Your task to perform on an android device: Open the stopwatch Image 0: 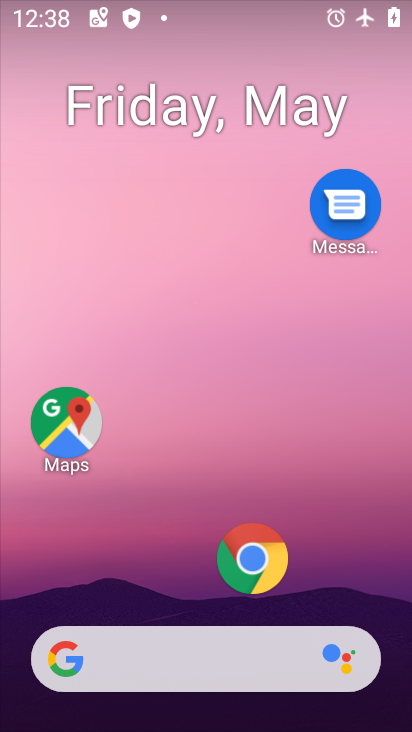
Step 0: drag from (257, 614) to (247, 134)
Your task to perform on an android device: Open the stopwatch Image 1: 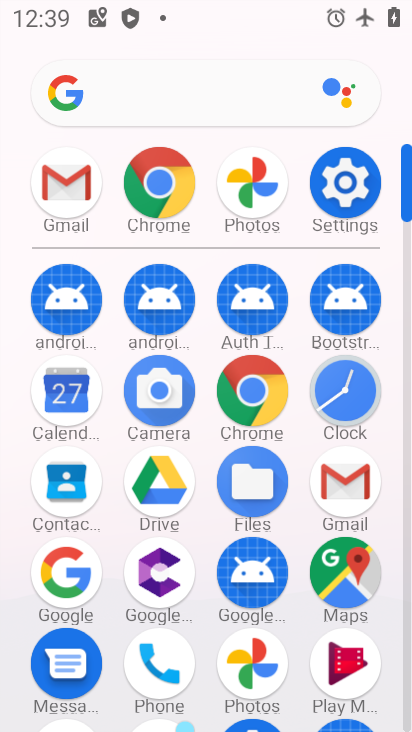
Step 1: click (364, 407)
Your task to perform on an android device: Open the stopwatch Image 2: 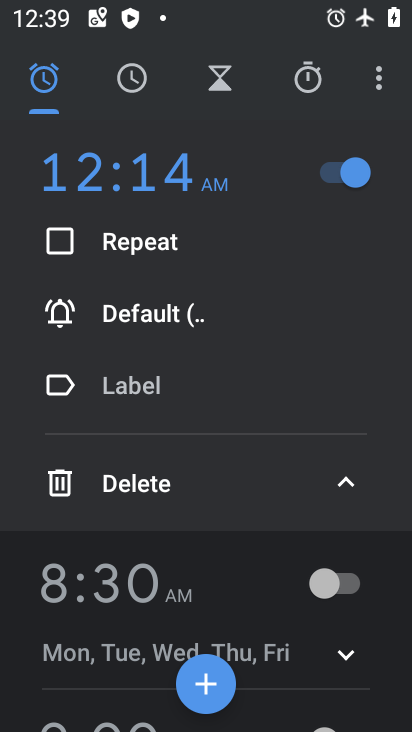
Step 2: drag from (163, 419) to (194, 177)
Your task to perform on an android device: Open the stopwatch Image 3: 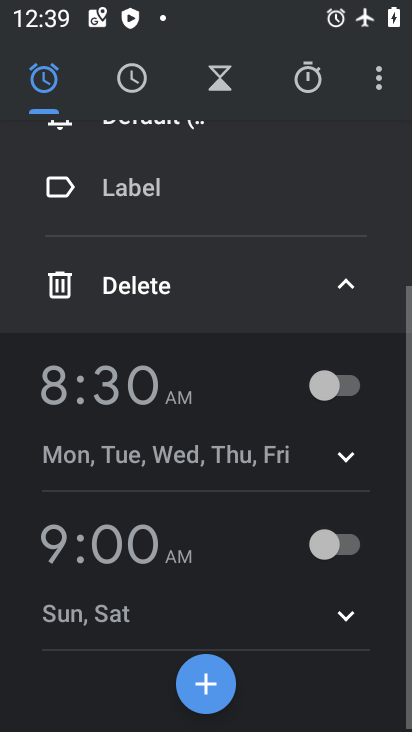
Step 3: click (280, 74)
Your task to perform on an android device: Open the stopwatch Image 4: 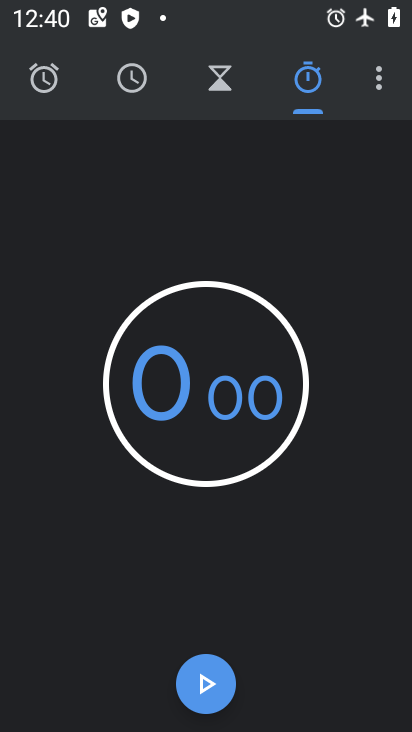
Step 4: task complete